Your task to perform on an android device: Go to internet settings Image 0: 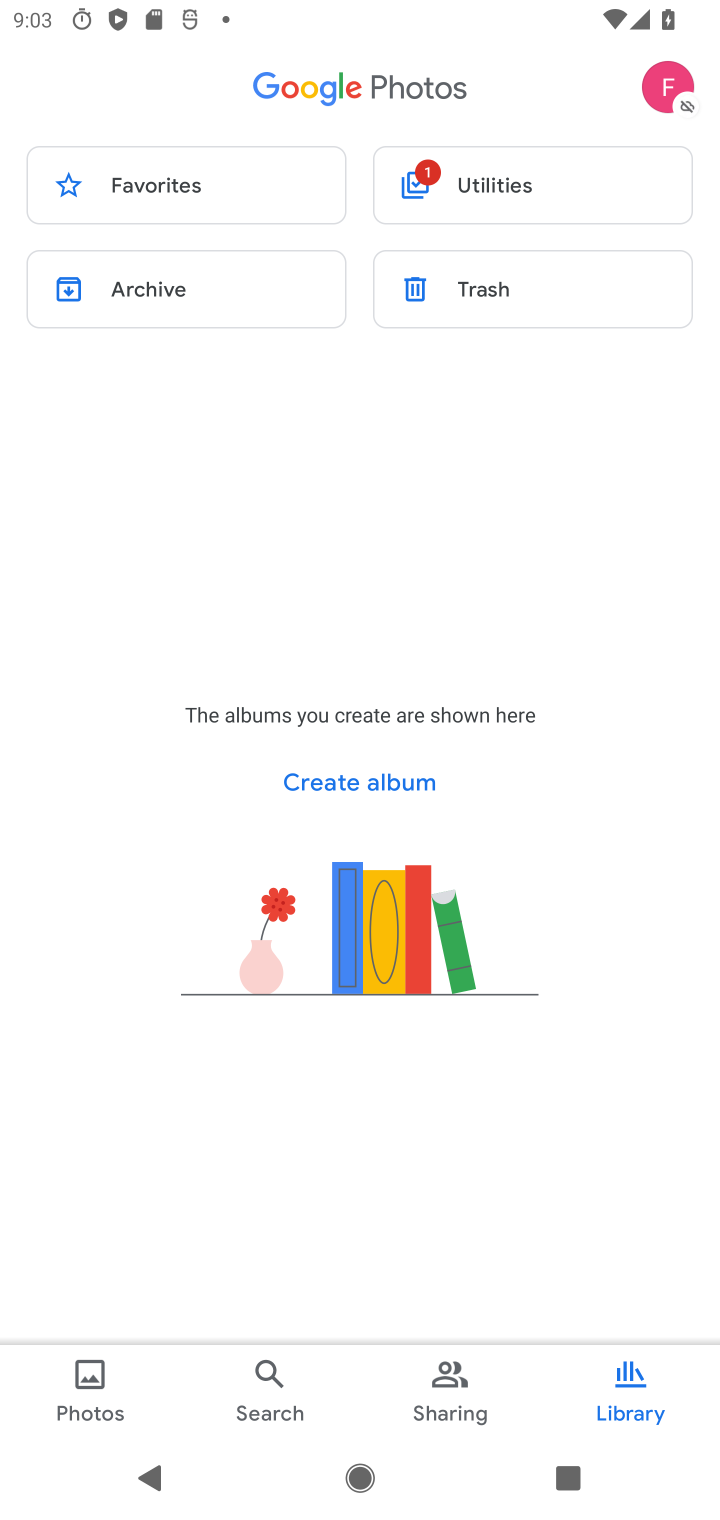
Step 0: press home button
Your task to perform on an android device: Go to internet settings Image 1: 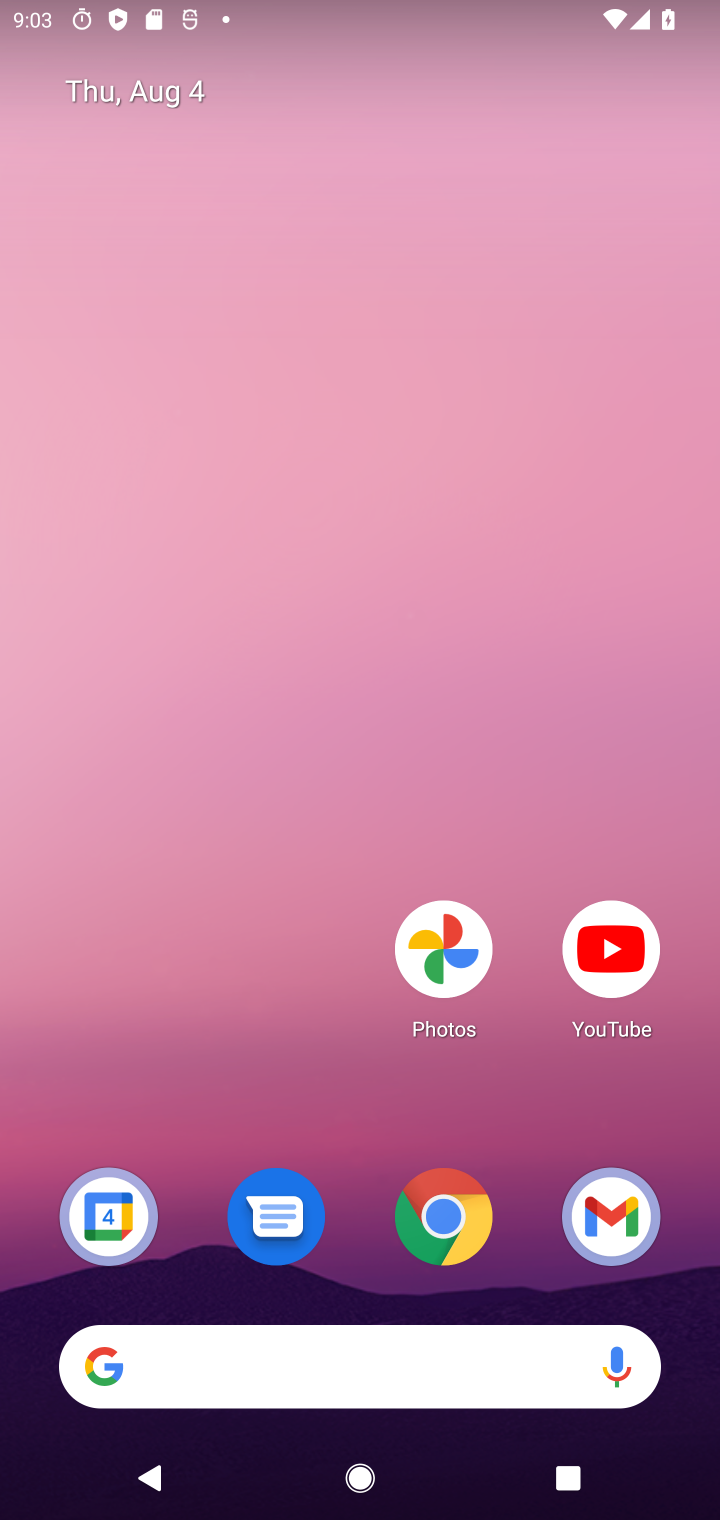
Step 1: drag from (373, 1312) to (370, 154)
Your task to perform on an android device: Go to internet settings Image 2: 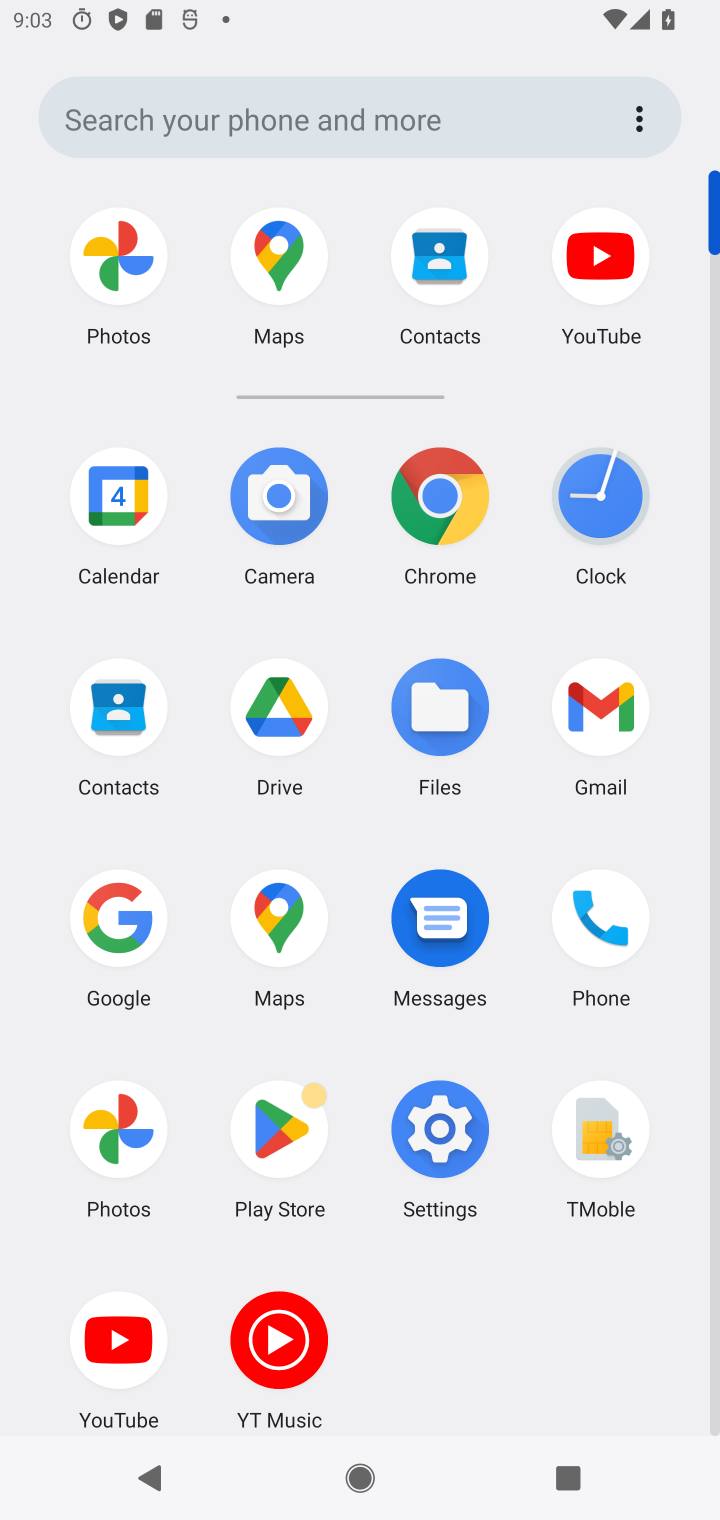
Step 2: click (439, 1137)
Your task to perform on an android device: Go to internet settings Image 3: 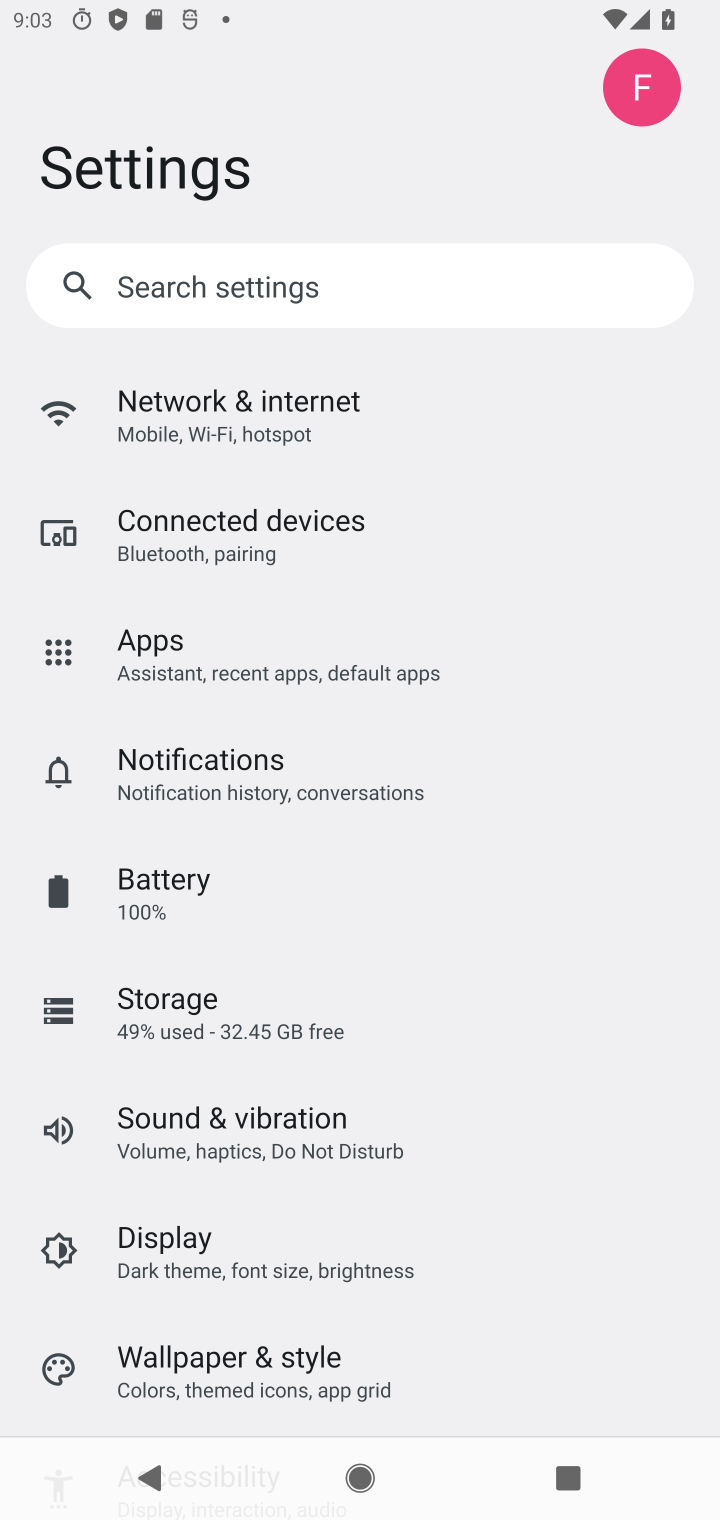
Step 3: click (218, 414)
Your task to perform on an android device: Go to internet settings Image 4: 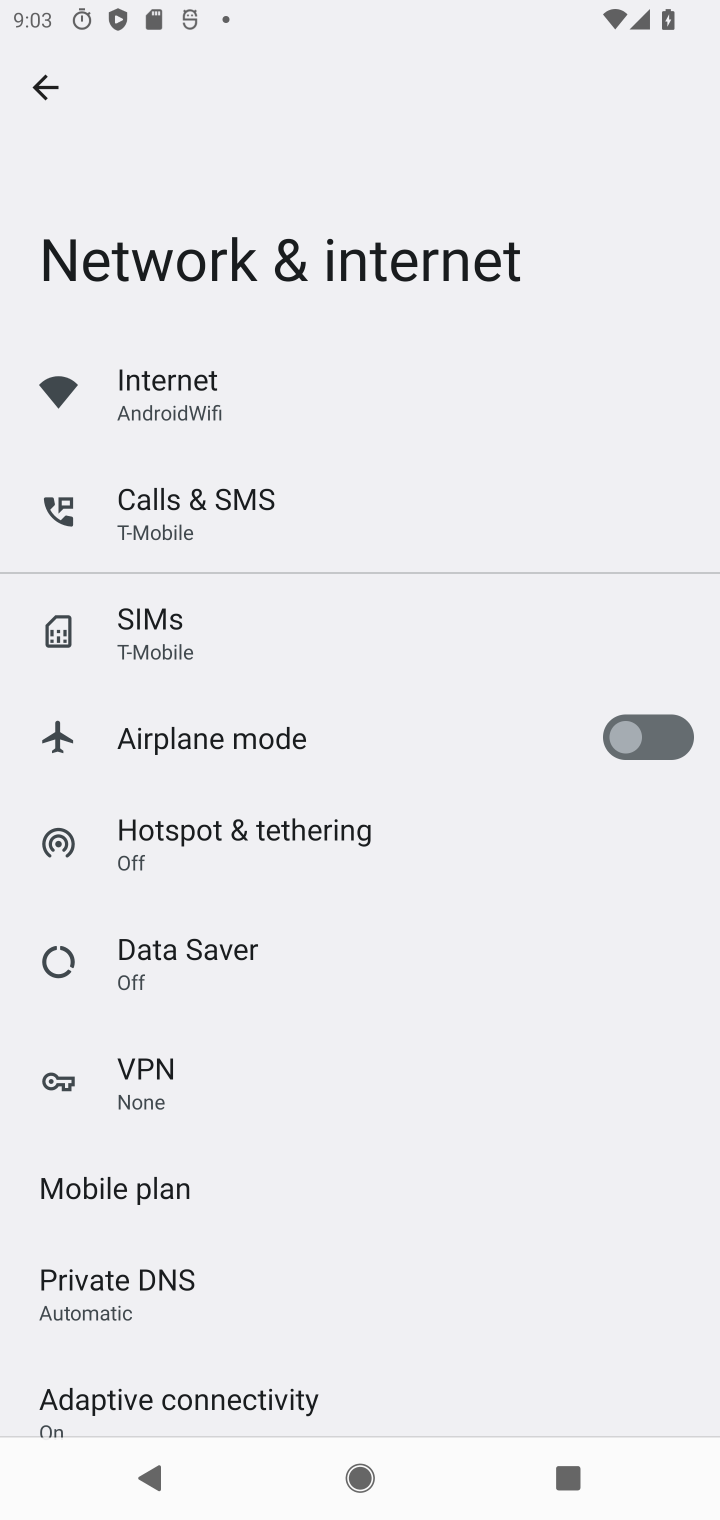
Step 4: click (172, 402)
Your task to perform on an android device: Go to internet settings Image 5: 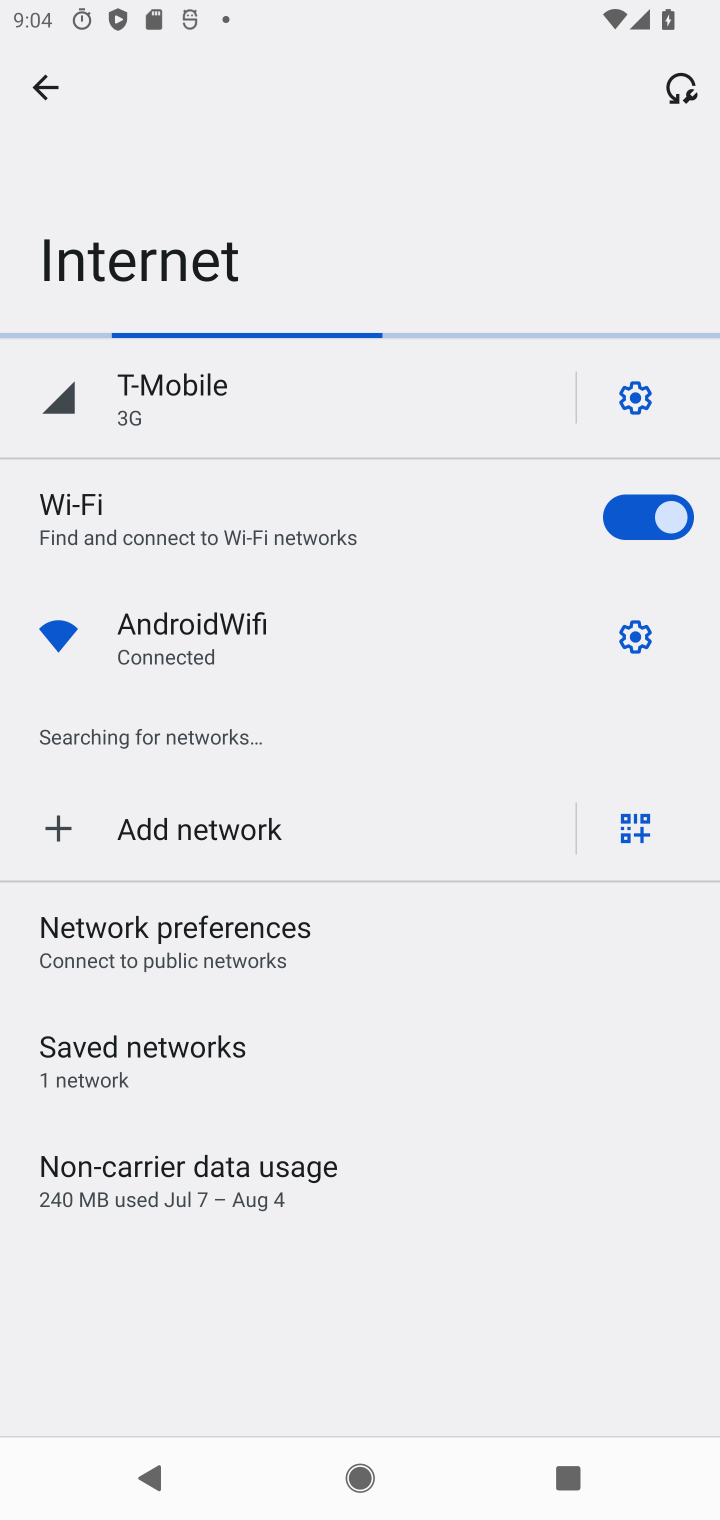
Step 5: task complete